Your task to perform on an android device: clear all cookies in the chrome app Image 0: 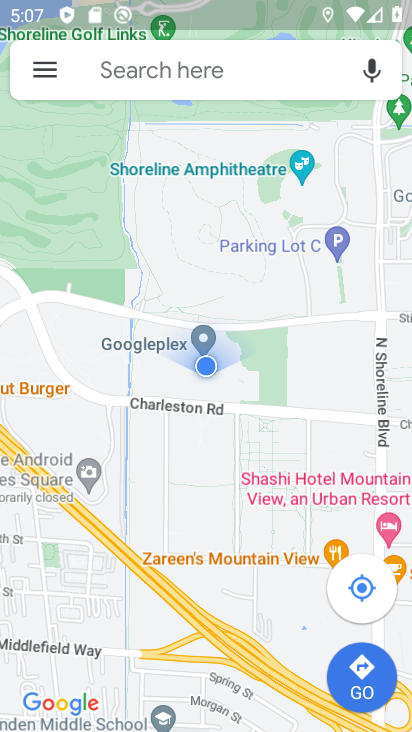
Step 0: press home button
Your task to perform on an android device: clear all cookies in the chrome app Image 1: 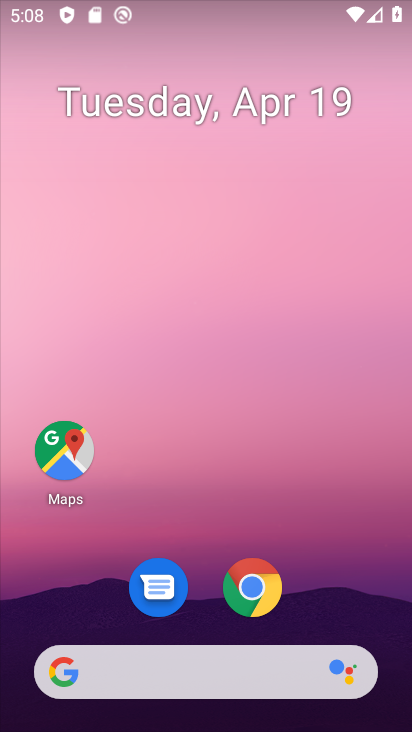
Step 1: click (247, 601)
Your task to perform on an android device: clear all cookies in the chrome app Image 2: 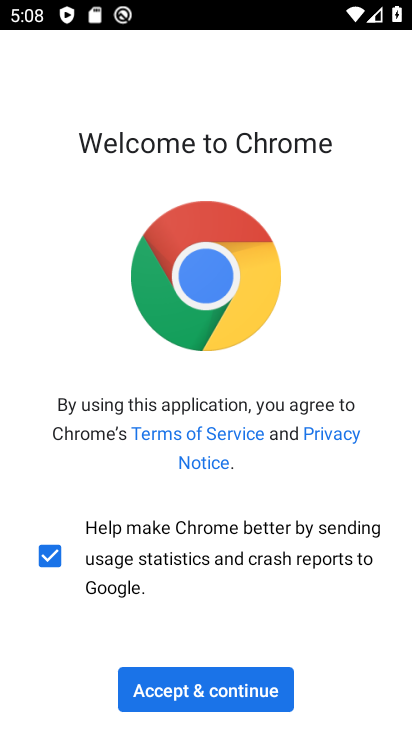
Step 2: click (272, 689)
Your task to perform on an android device: clear all cookies in the chrome app Image 3: 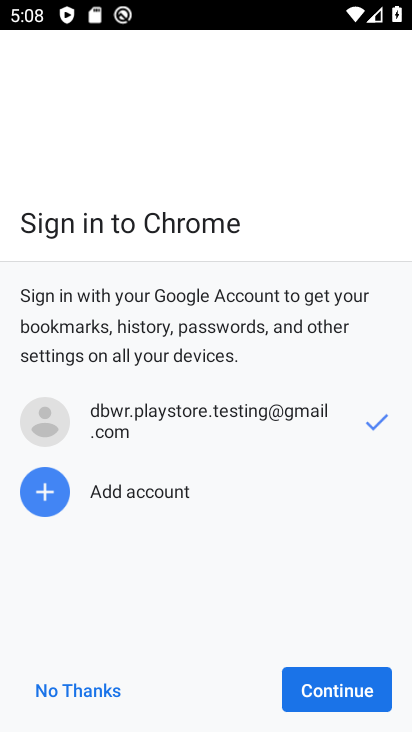
Step 3: click (309, 684)
Your task to perform on an android device: clear all cookies in the chrome app Image 4: 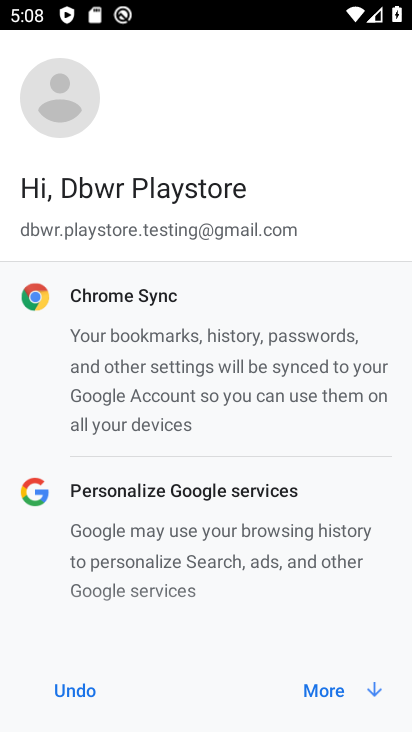
Step 4: click (309, 684)
Your task to perform on an android device: clear all cookies in the chrome app Image 5: 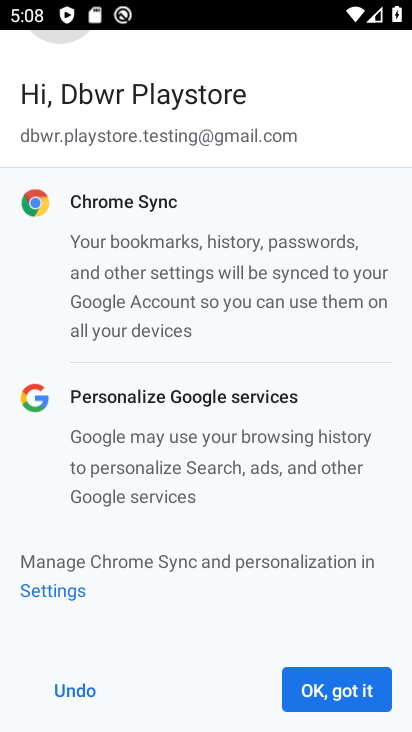
Step 5: click (324, 703)
Your task to perform on an android device: clear all cookies in the chrome app Image 6: 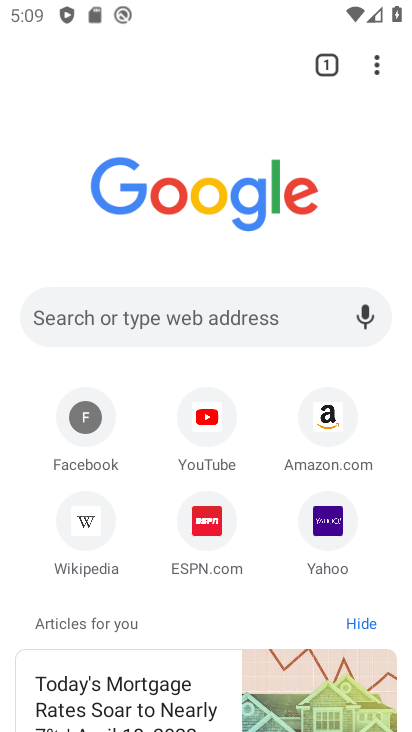
Step 6: click (374, 74)
Your task to perform on an android device: clear all cookies in the chrome app Image 7: 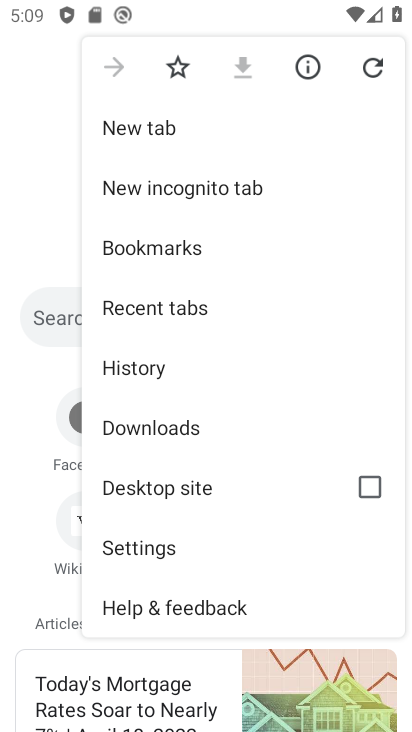
Step 7: click (167, 366)
Your task to perform on an android device: clear all cookies in the chrome app Image 8: 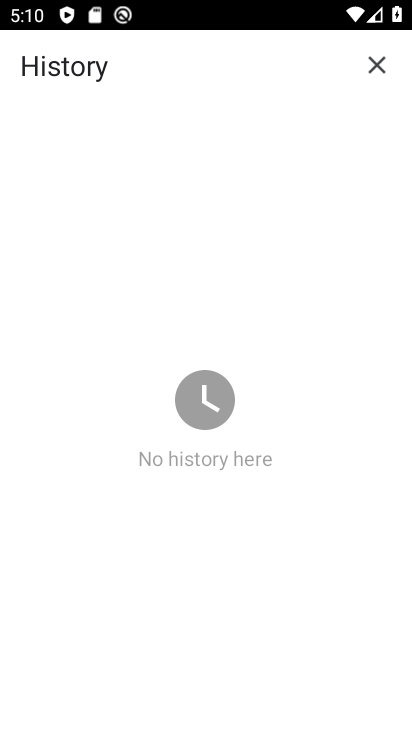
Step 8: task complete